Your task to perform on an android device: change the clock style Image 0: 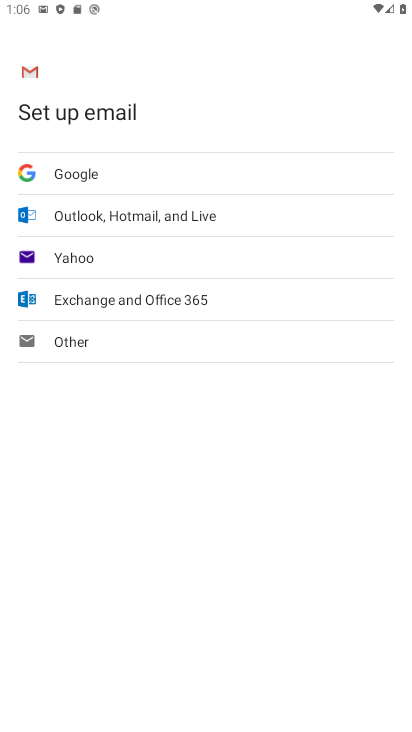
Step 0: press home button
Your task to perform on an android device: change the clock style Image 1: 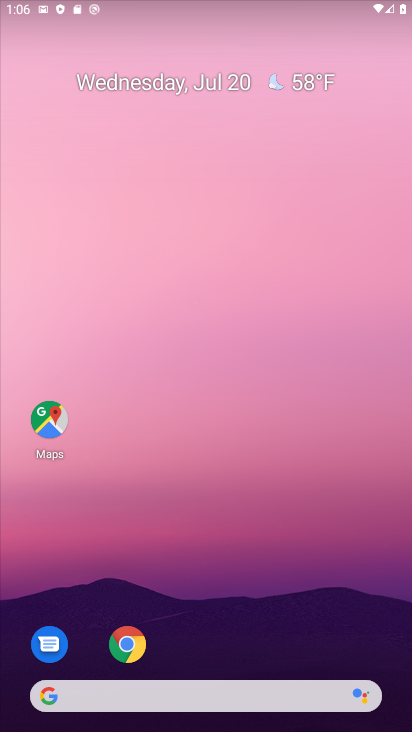
Step 1: drag from (198, 466) to (204, 154)
Your task to perform on an android device: change the clock style Image 2: 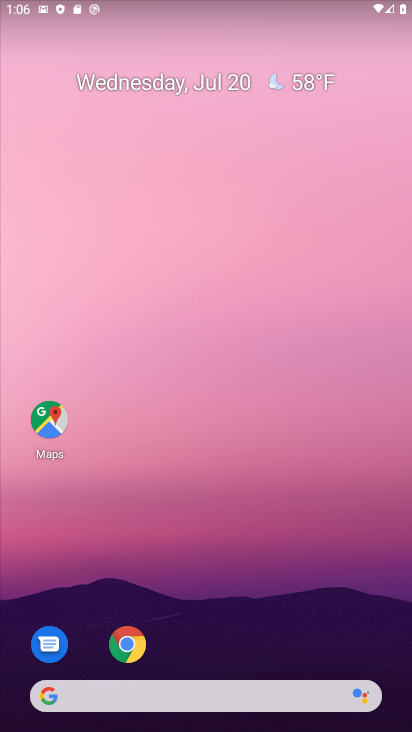
Step 2: drag from (250, 632) to (247, 45)
Your task to perform on an android device: change the clock style Image 3: 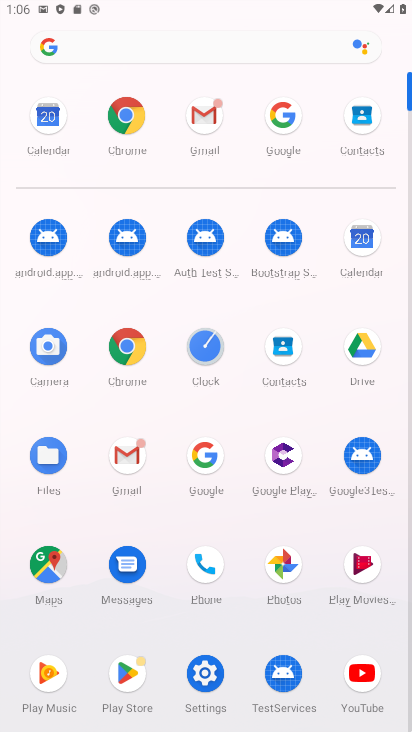
Step 3: click (206, 355)
Your task to perform on an android device: change the clock style Image 4: 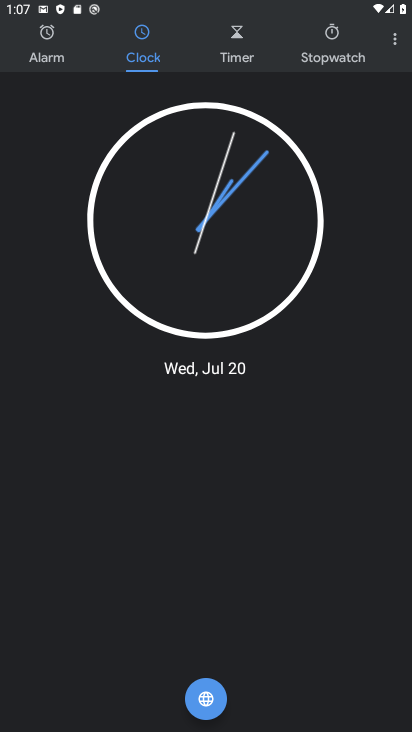
Step 4: click (390, 40)
Your task to perform on an android device: change the clock style Image 5: 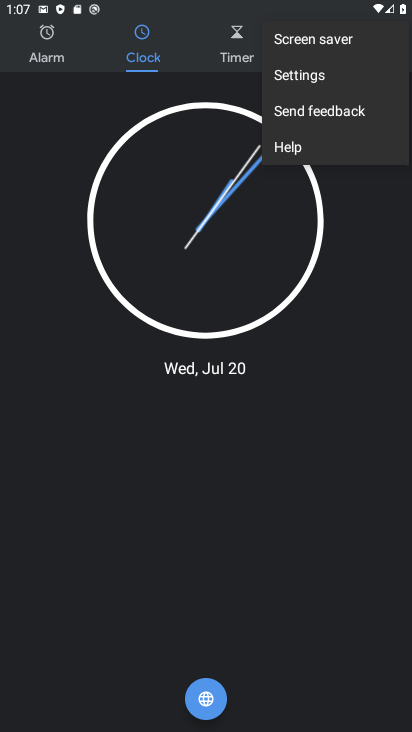
Step 5: click (305, 77)
Your task to perform on an android device: change the clock style Image 6: 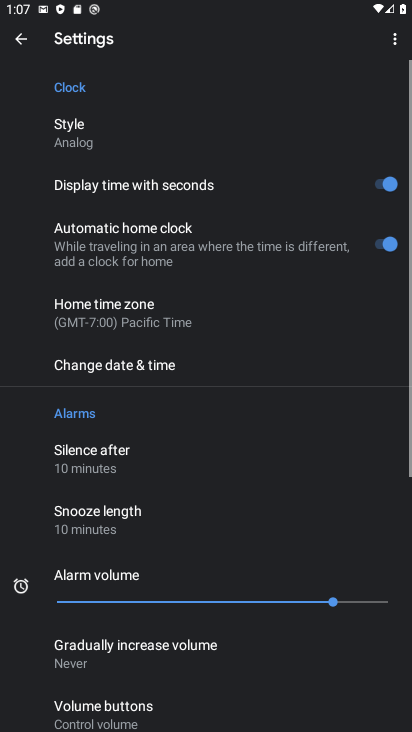
Step 6: click (112, 136)
Your task to perform on an android device: change the clock style Image 7: 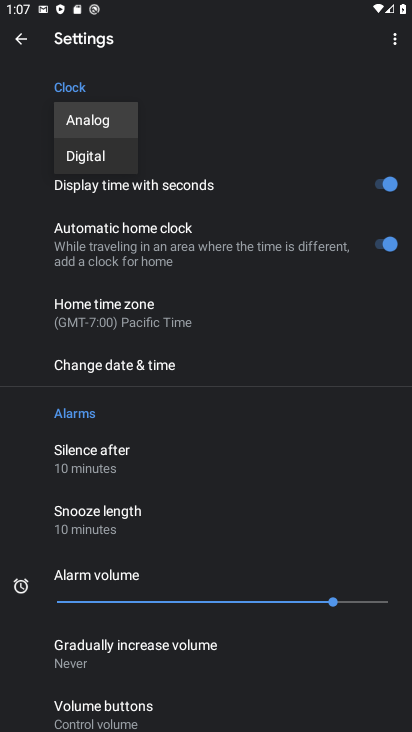
Step 7: click (95, 156)
Your task to perform on an android device: change the clock style Image 8: 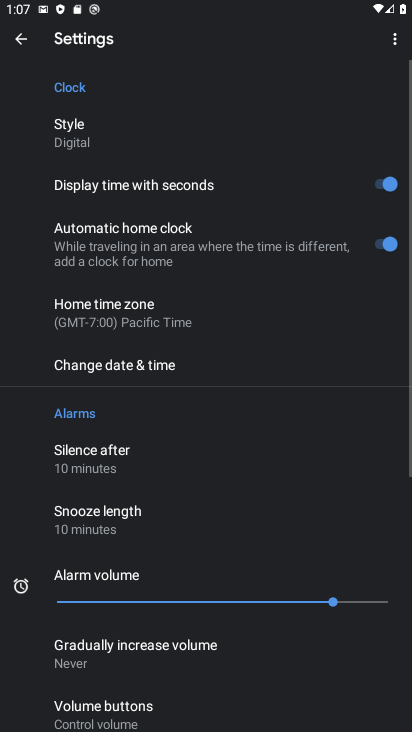
Step 8: task complete